Your task to perform on an android device: change the clock display to digital Image 0: 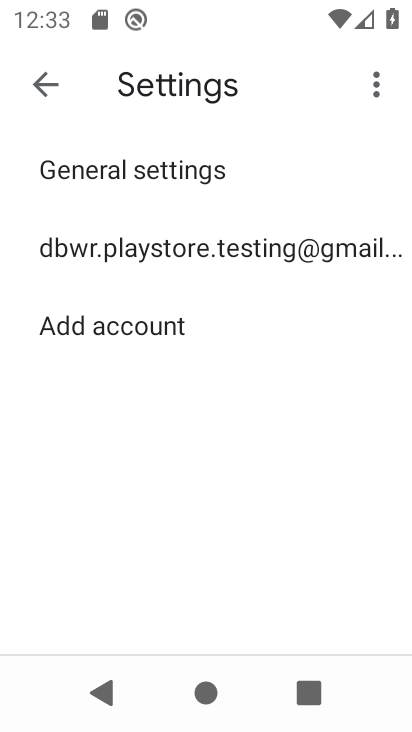
Step 0: press home button
Your task to perform on an android device: change the clock display to digital Image 1: 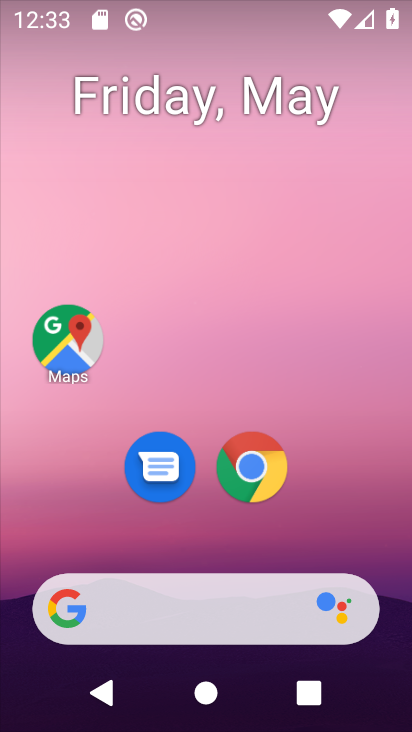
Step 1: drag from (344, 477) to (148, 3)
Your task to perform on an android device: change the clock display to digital Image 2: 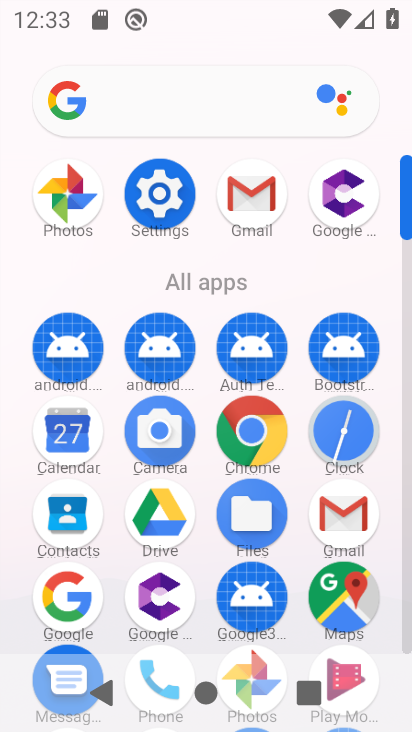
Step 2: click (343, 448)
Your task to perform on an android device: change the clock display to digital Image 3: 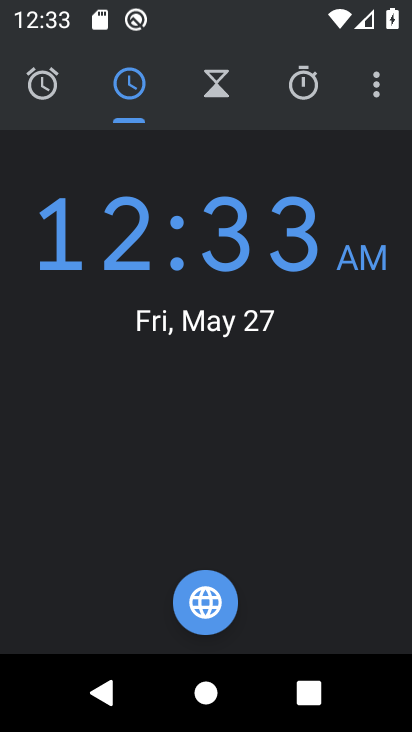
Step 3: click (374, 102)
Your task to perform on an android device: change the clock display to digital Image 4: 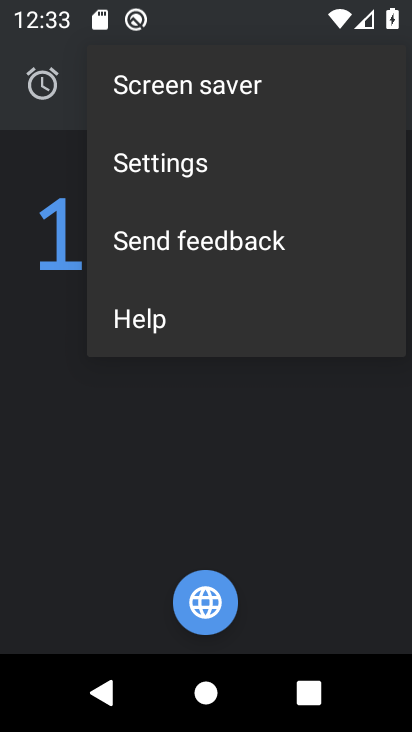
Step 4: click (202, 158)
Your task to perform on an android device: change the clock display to digital Image 5: 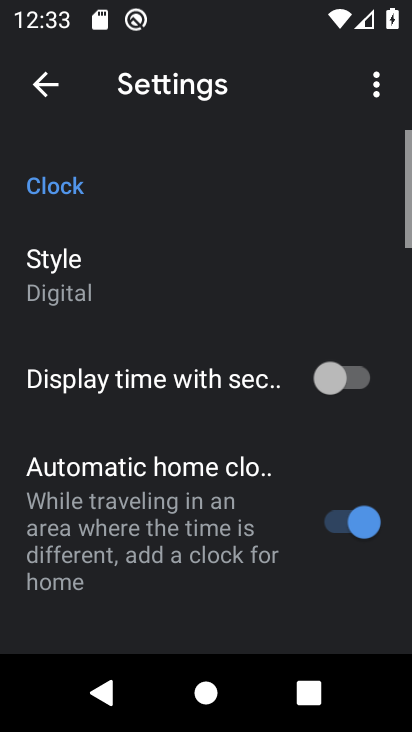
Step 5: click (75, 278)
Your task to perform on an android device: change the clock display to digital Image 6: 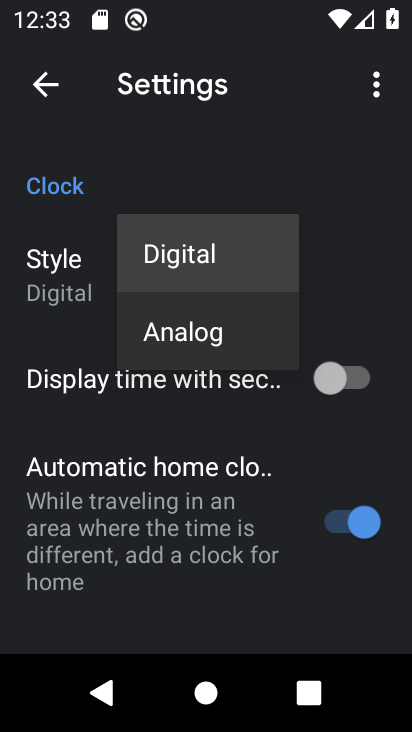
Step 6: task complete